Your task to perform on an android device: change the clock display to analog Image 0: 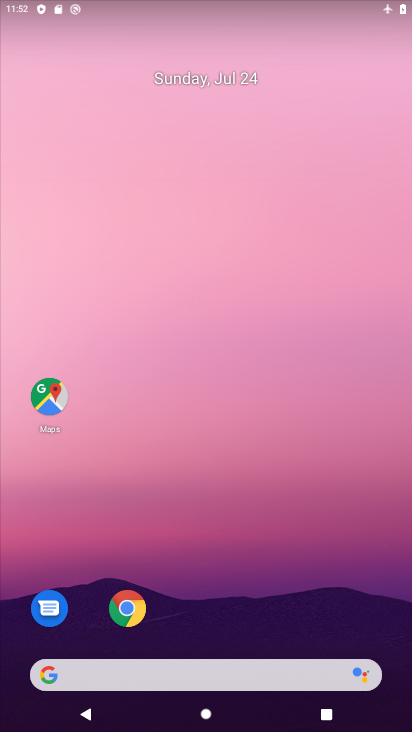
Step 0: drag from (208, 641) to (233, 167)
Your task to perform on an android device: change the clock display to analog Image 1: 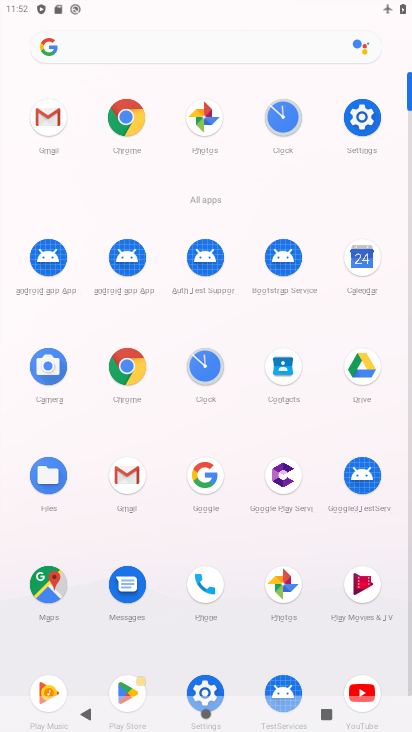
Step 1: click (271, 163)
Your task to perform on an android device: change the clock display to analog Image 2: 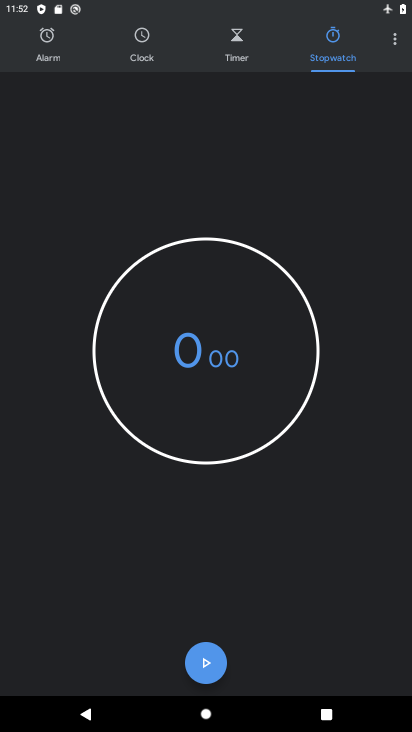
Step 2: click (386, 36)
Your task to perform on an android device: change the clock display to analog Image 3: 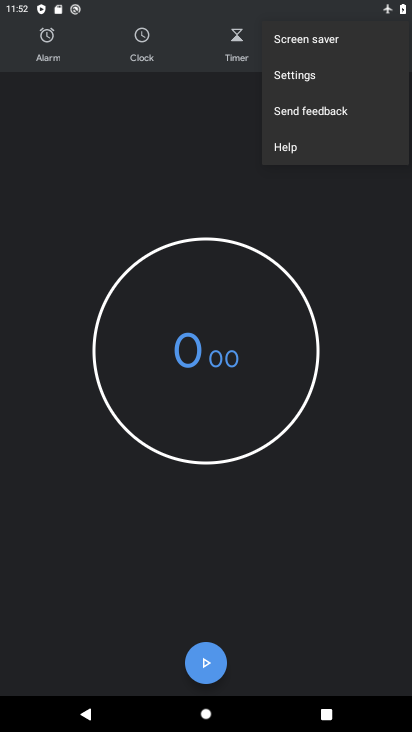
Step 3: click (333, 78)
Your task to perform on an android device: change the clock display to analog Image 4: 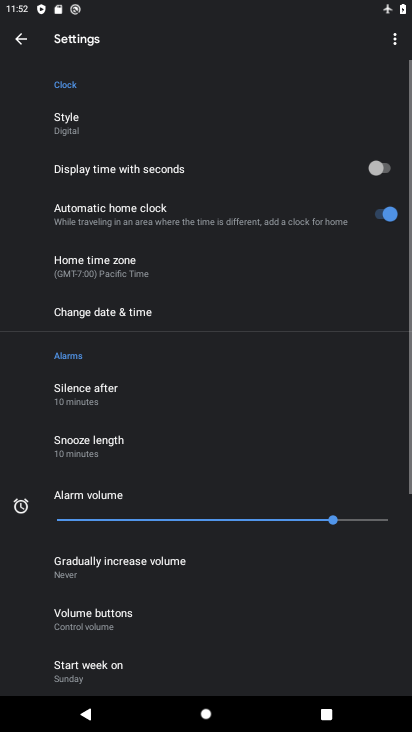
Step 4: click (105, 135)
Your task to perform on an android device: change the clock display to analog Image 5: 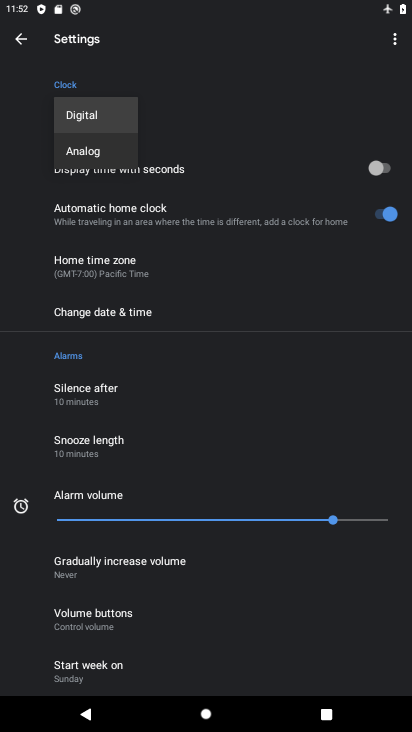
Step 5: click (107, 157)
Your task to perform on an android device: change the clock display to analog Image 6: 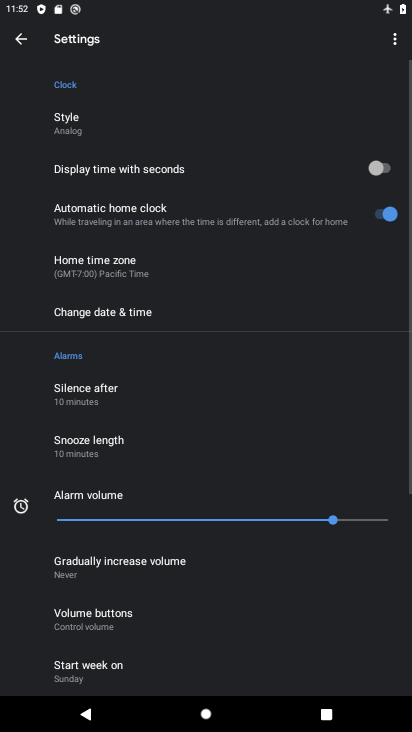
Step 6: task complete